Your task to perform on an android device: Open Google Chrome Image 0: 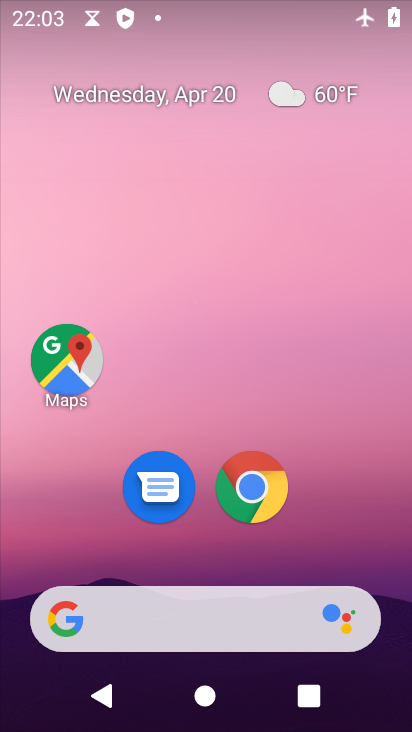
Step 0: click (236, 480)
Your task to perform on an android device: Open Google Chrome Image 1: 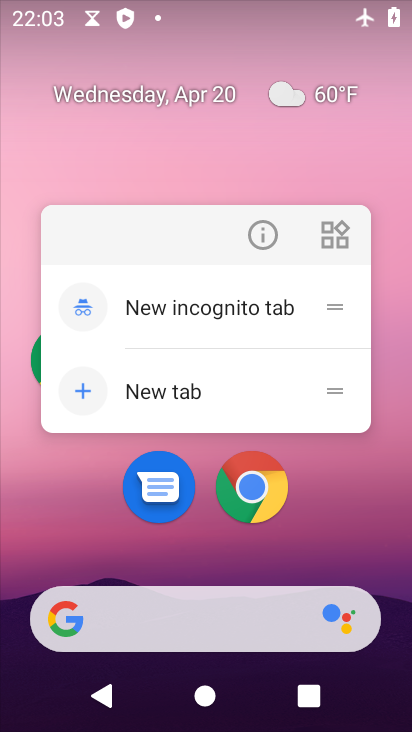
Step 1: click (271, 225)
Your task to perform on an android device: Open Google Chrome Image 2: 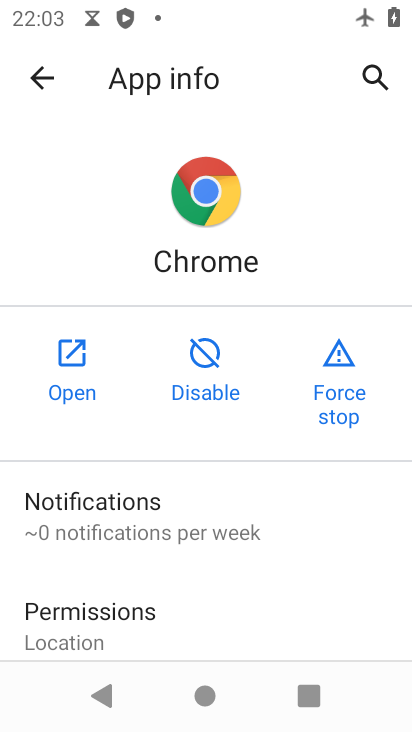
Step 2: click (78, 348)
Your task to perform on an android device: Open Google Chrome Image 3: 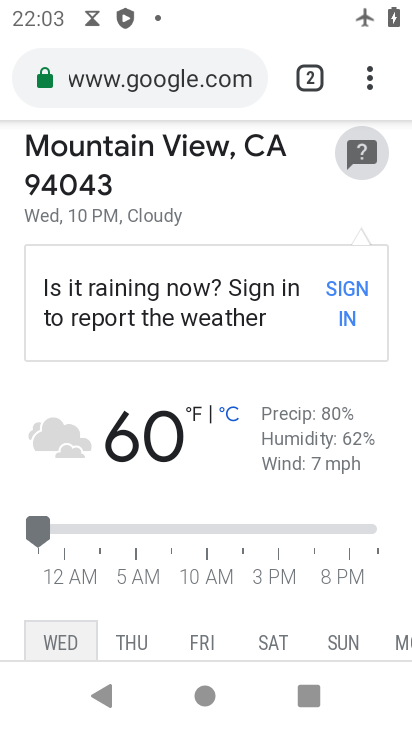
Step 3: click (304, 78)
Your task to perform on an android device: Open Google Chrome Image 4: 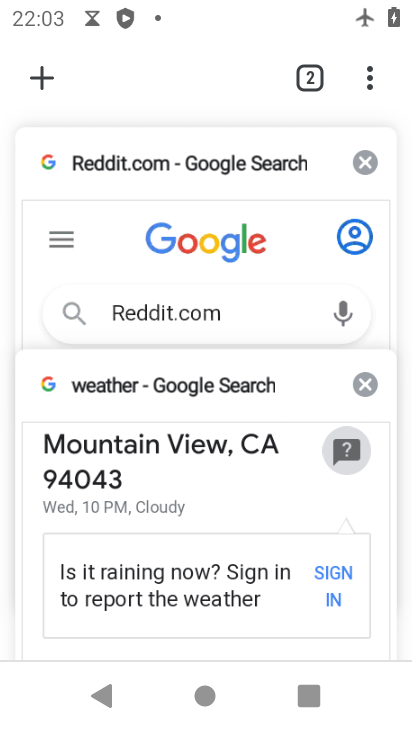
Step 4: click (361, 172)
Your task to perform on an android device: Open Google Chrome Image 5: 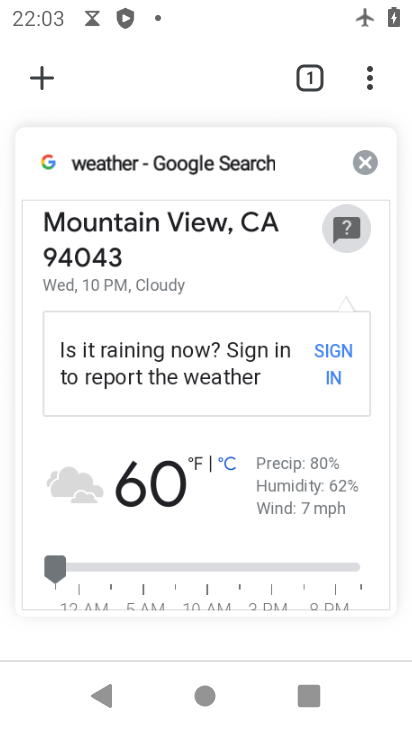
Step 5: click (313, 76)
Your task to perform on an android device: Open Google Chrome Image 6: 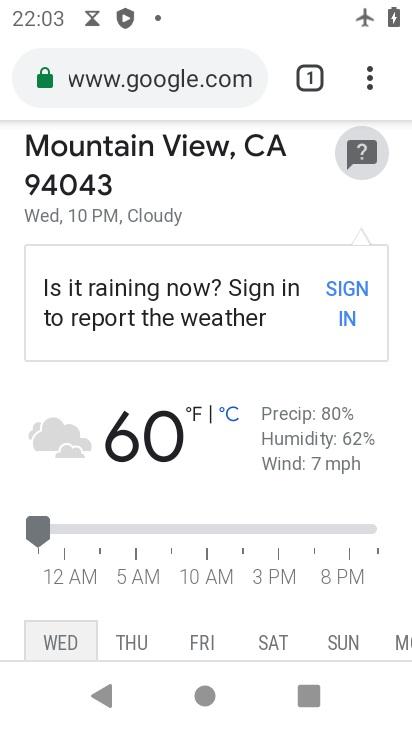
Step 6: click (314, 82)
Your task to perform on an android device: Open Google Chrome Image 7: 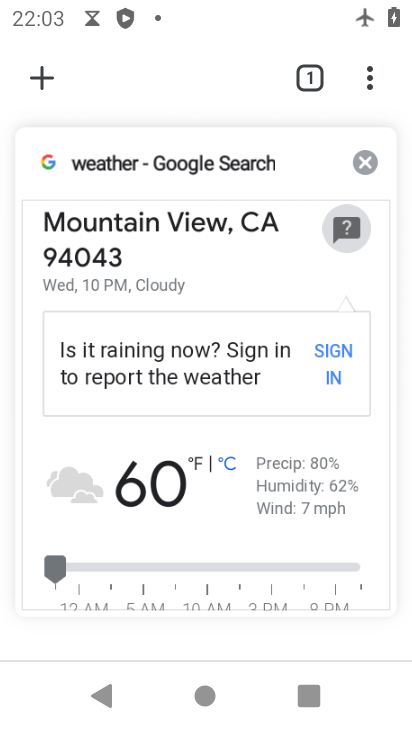
Step 7: click (34, 71)
Your task to perform on an android device: Open Google Chrome Image 8: 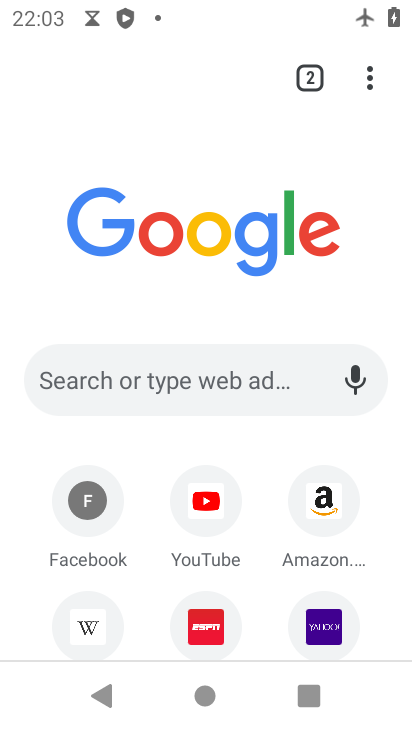
Step 8: task complete